Your task to perform on an android device: Go to Yahoo.com Image 0: 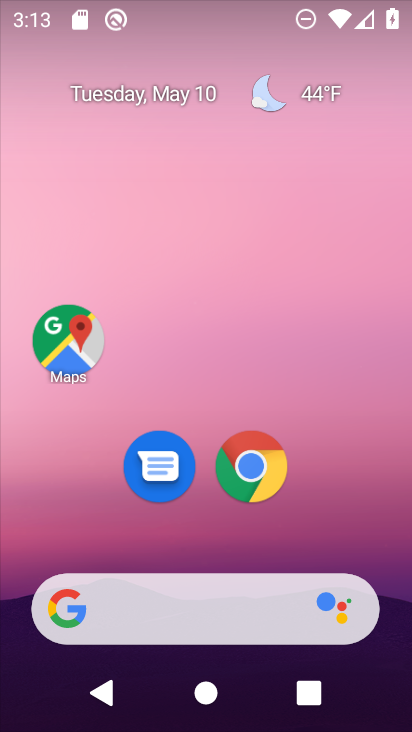
Step 0: click (244, 477)
Your task to perform on an android device: Go to Yahoo.com Image 1: 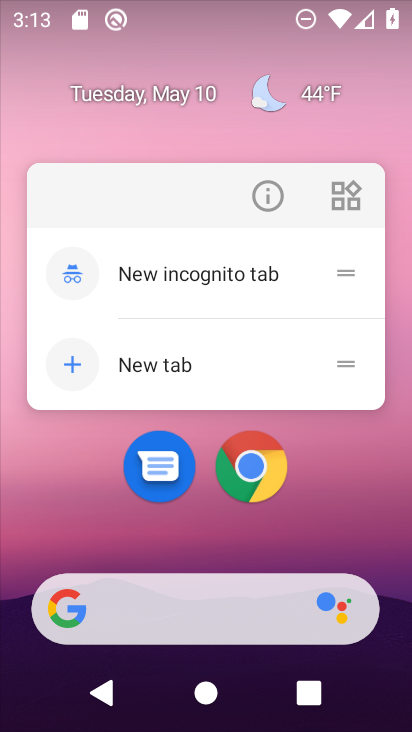
Step 1: click (244, 477)
Your task to perform on an android device: Go to Yahoo.com Image 2: 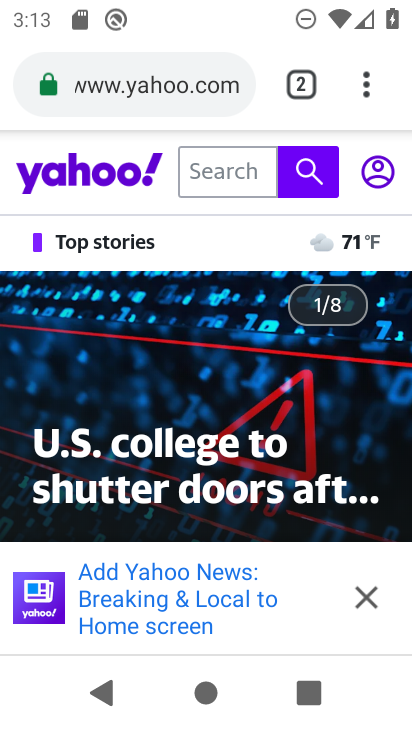
Step 2: task complete